Your task to perform on an android device: Look up the best rated book on Goodreads Image 0: 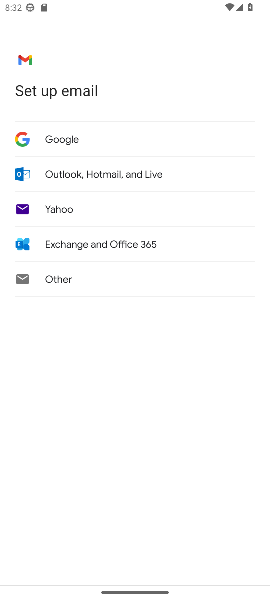
Step 0: press home button
Your task to perform on an android device: Look up the best rated book on Goodreads Image 1: 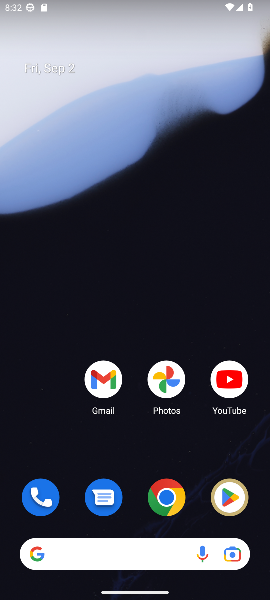
Step 1: click (122, 179)
Your task to perform on an android device: Look up the best rated book on Goodreads Image 2: 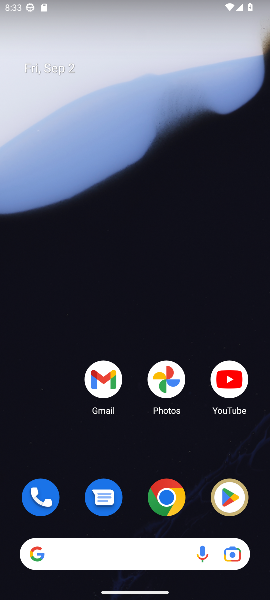
Step 2: drag from (129, 395) to (128, 268)
Your task to perform on an android device: Look up the best rated book on Goodreads Image 3: 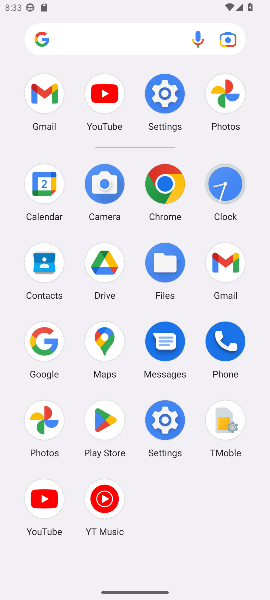
Step 3: click (43, 344)
Your task to perform on an android device: Look up the best rated book on Goodreads Image 4: 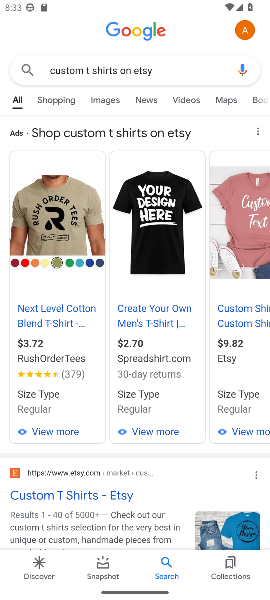
Step 4: click (167, 62)
Your task to perform on an android device: Look up the best rated book on Goodreads Image 5: 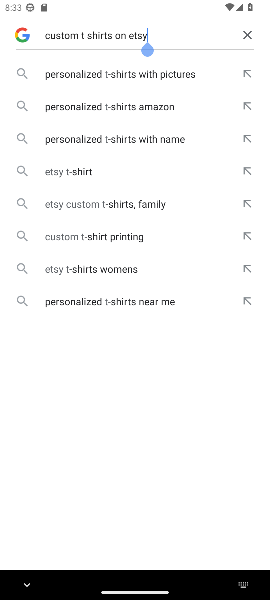
Step 5: click (247, 30)
Your task to perform on an android device: Look up the best rated book on Goodreads Image 6: 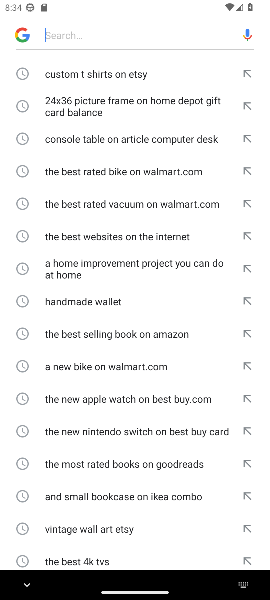
Step 6: type " the best rated book on Goodreads"
Your task to perform on an android device: Look up the best rated book on Goodreads Image 7: 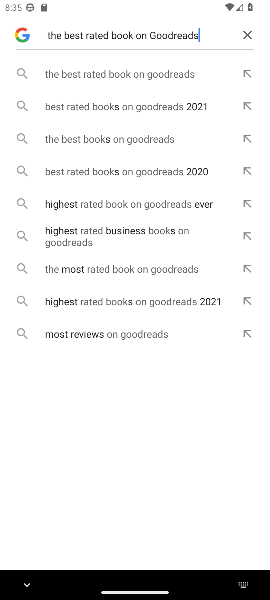
Step 7: click (164, 68)
Your task to perform on an android device: Look up the best rated book on Goodreads Image 8: 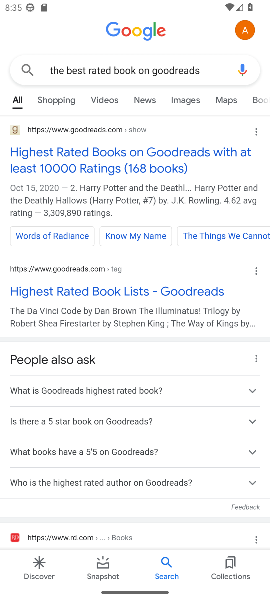
Step 8: task complete